Your task to perform on an android device: turn on the 12-hour format for clock Image 0: 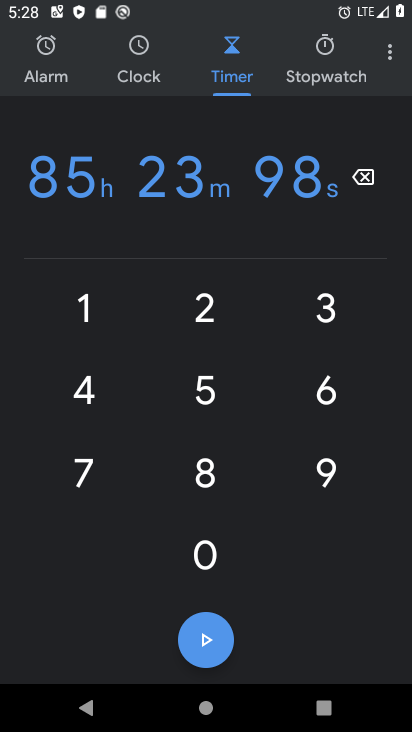
Step 0: press home button
Your task to perform on an android device: turn on the 12-hour format for clock Image 1: 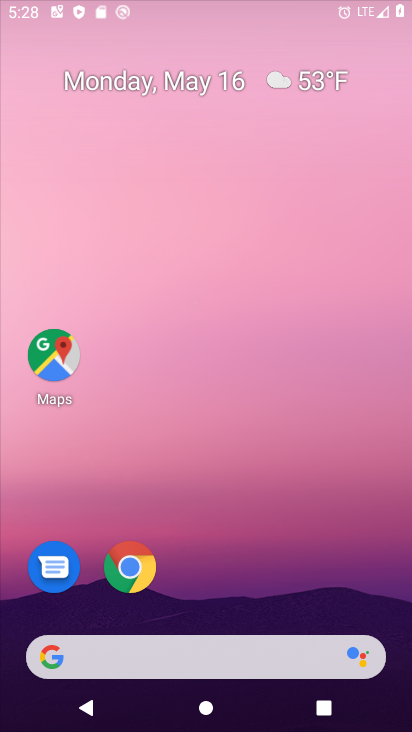
Step 1: drag from (301, 656) to (291, 0)
Your task to perform on an android device: turn on the 12-hour format for clock Image 2: 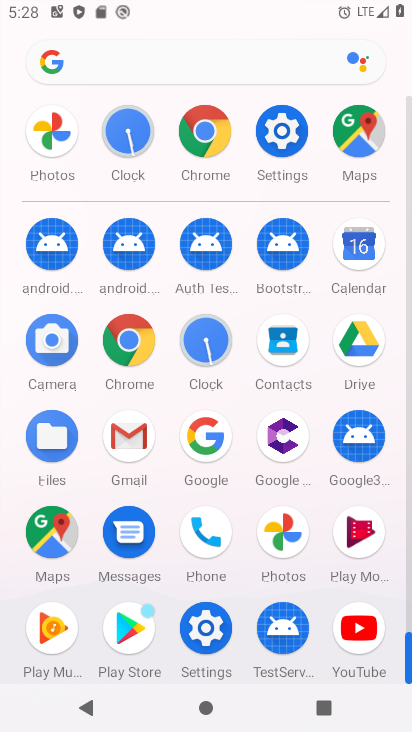
Step 2: click (211, 342)
Your task to perform on an android device: turn on the 12-hour format for clock Image 3: 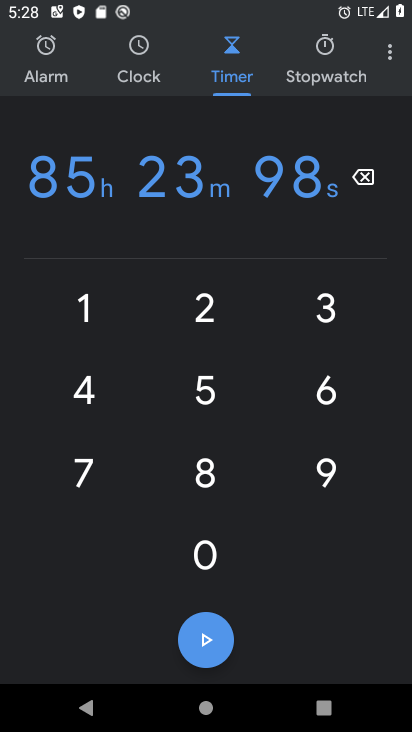
Step 3: click (392, 50)
Your task to perform on an android device: turn on the 12-hour format for clock Image 4: 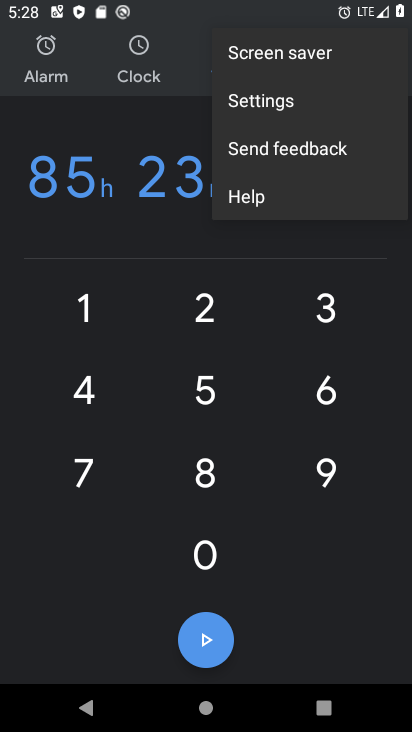
Step 4: click (306, 101)
Your task to perform on an android device: turn on the 12-hour format for clock Image 5: 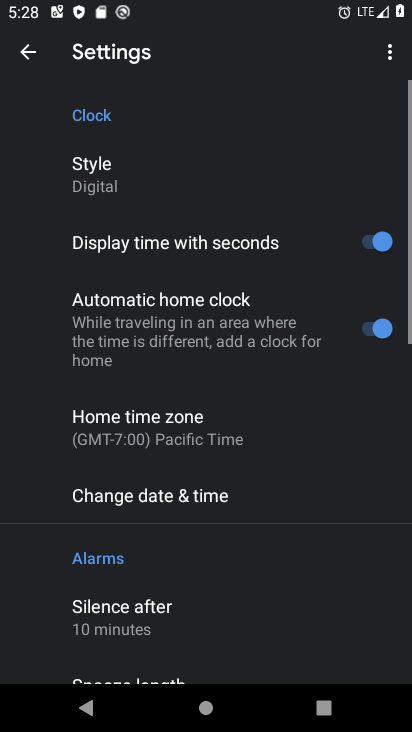
Step 5: drag from (162, 580) to (107, 69)
Your task to perform on an android device: turn on the 12-hour format for clock Image 6: 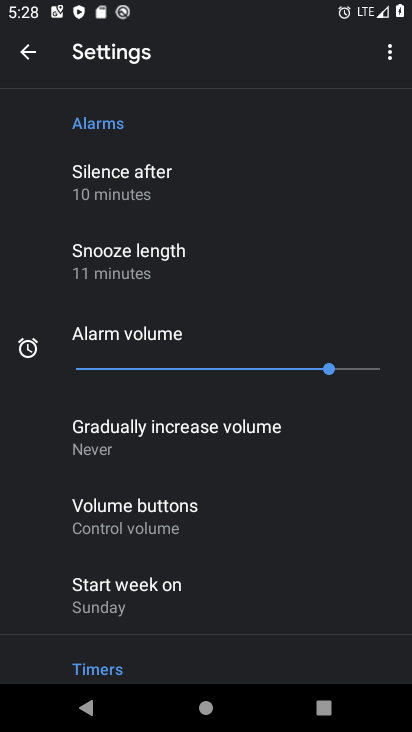
Step 6: drag from (184, 176) to (191, 653)
Your task to perform on an android device: turn on the 12-hour format for clock Image 7: 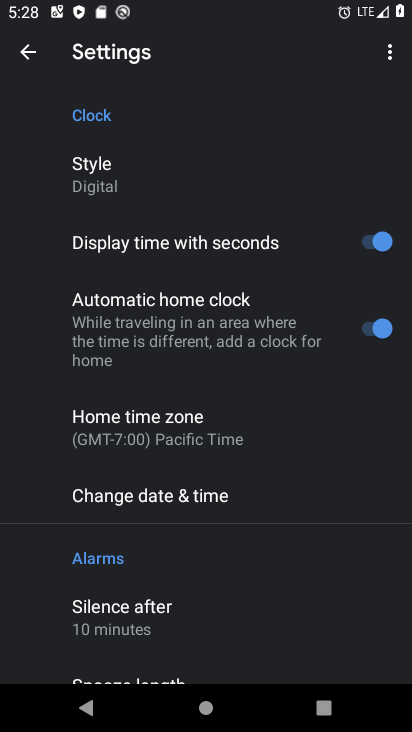
Step 7: click (172, 499)
Your task to perform on an android device: turn on the 12-hour format for clock Image 8: 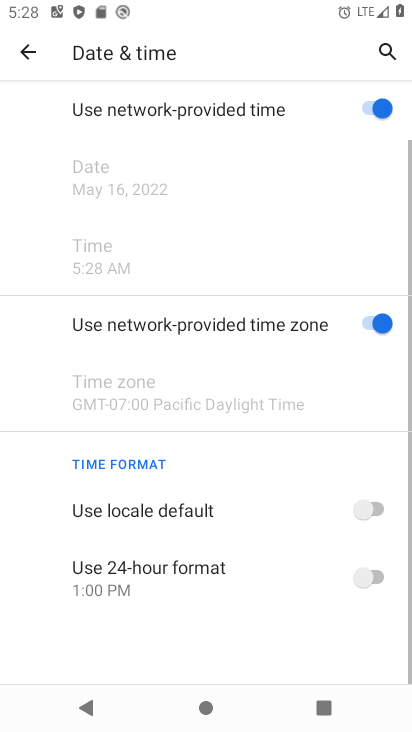
Step 8: task complete